Your task to perform on an android device: Go to notification settings Image 0: 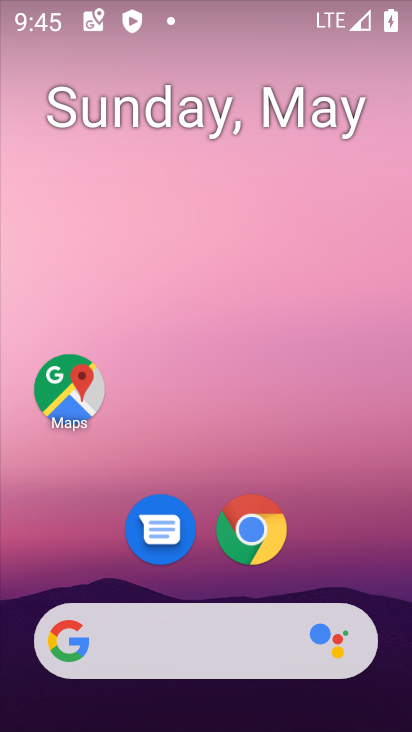
Step 0: click (247, 560)
Your task to perform on an android device: Go to notification settings Image 1: 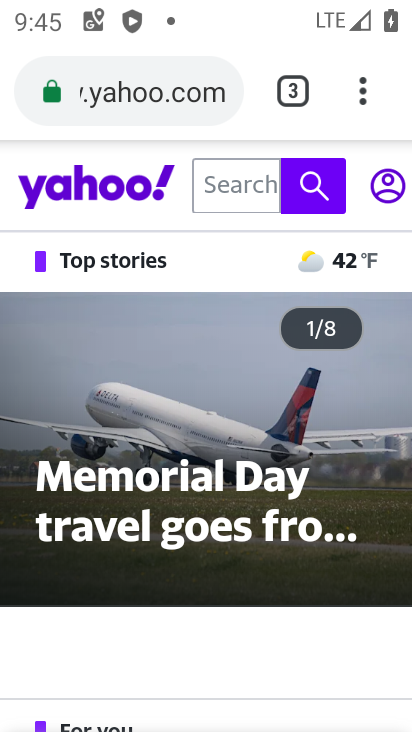
Step 1: click (364, 100)
Your task to perform on an android device: Go to notification settings Image 2: 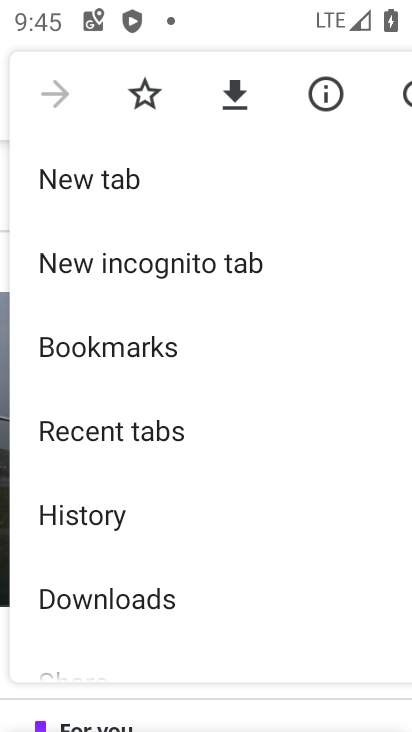
Step 2: drag from (199, 493) to (211, 206)
Your task to perform on an android device: Go to notification settings Image 3: 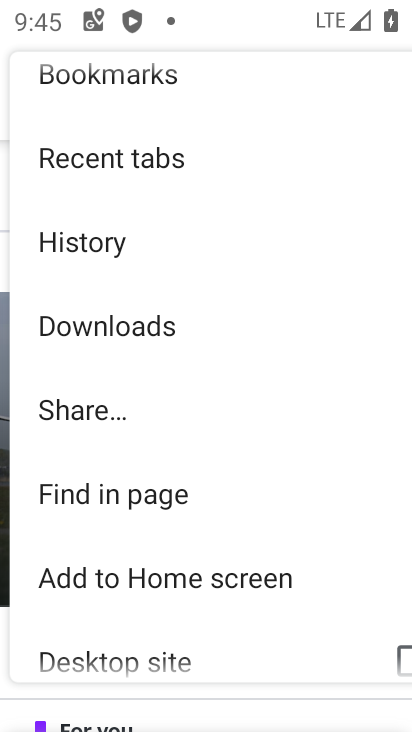
Step 3: drag from (140, 573) to (174, 295)
Your task to perform on an android device: Go to notification settings Image 4: 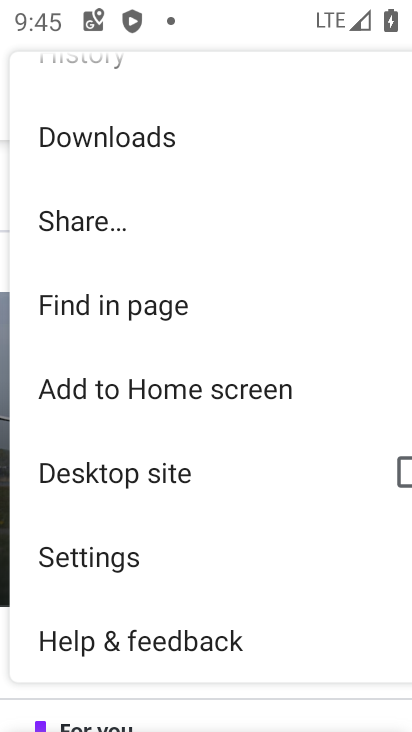
Step 4: click (169, 548)
Your task to perform on an android device: Go to notification settings Image 5: 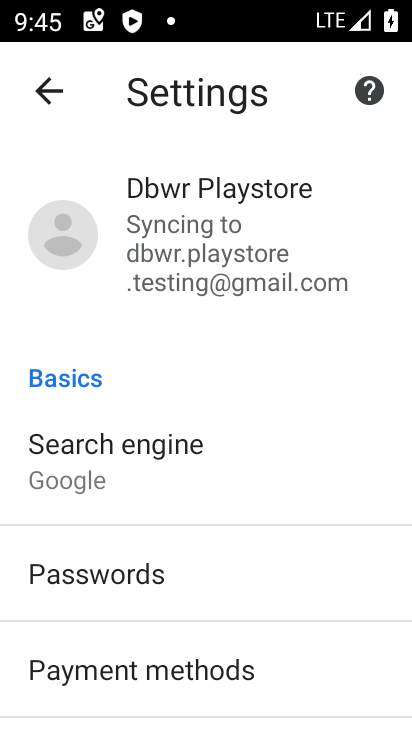
Step 5: drag from (150, 599) to (150, 286)
Your task to perform on an android device: Go to notification settings Image 6: 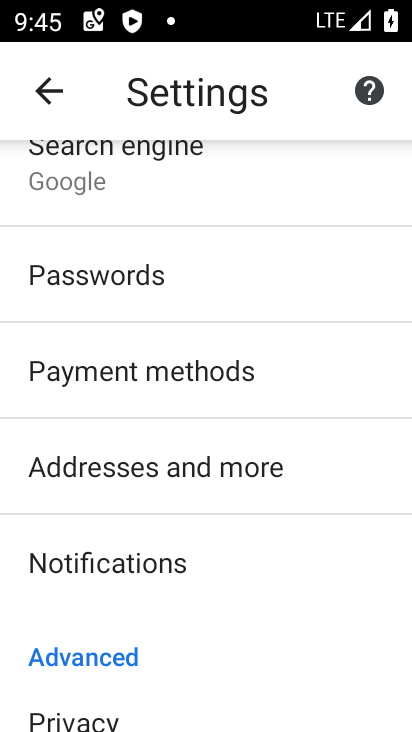
Step 6: click (105, 543)
Your task to perform on an android device: Go to notification settings Image 7: 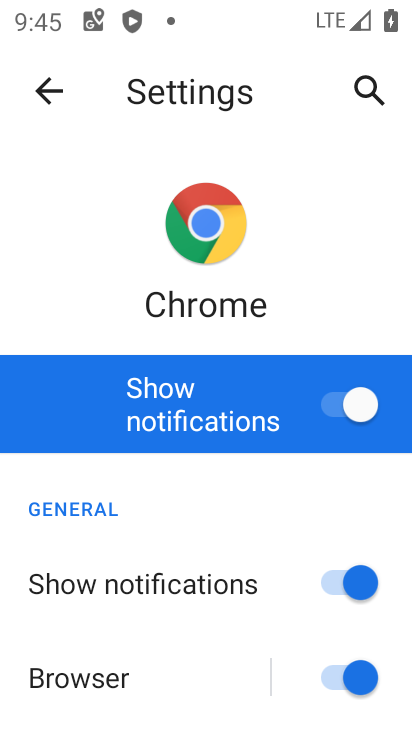
Step 7: task complete